Your task to perform on an android device: What's on my calendar today? Image 0: 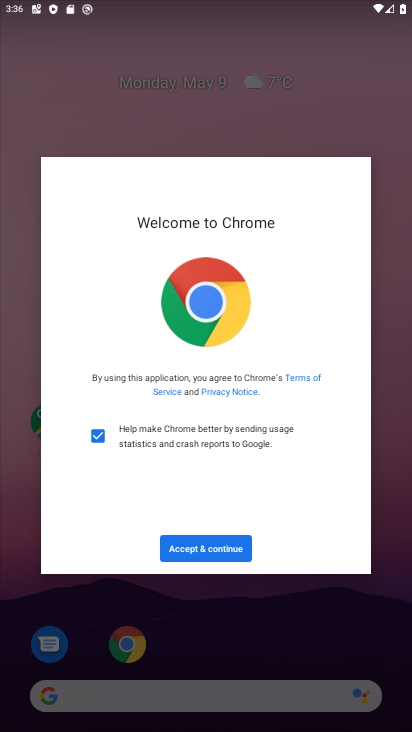
Step 0: click (384, 425)
Your task to perform on an android device: What's on my calendar today? Image 1: 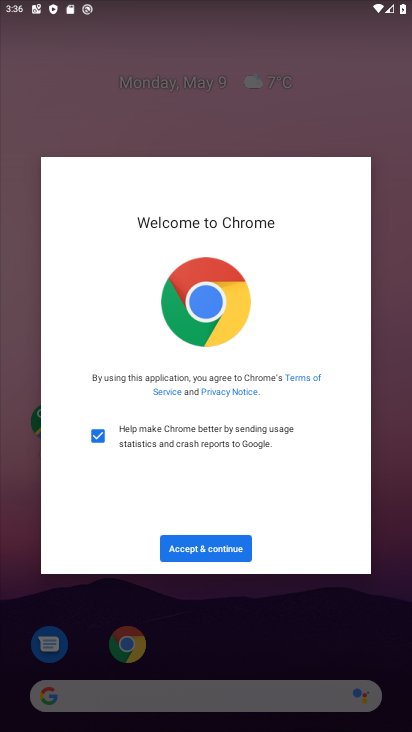
Step 1: click (198, 555)
Your task to perform on an android device: What's on my calendar today? Image 2: 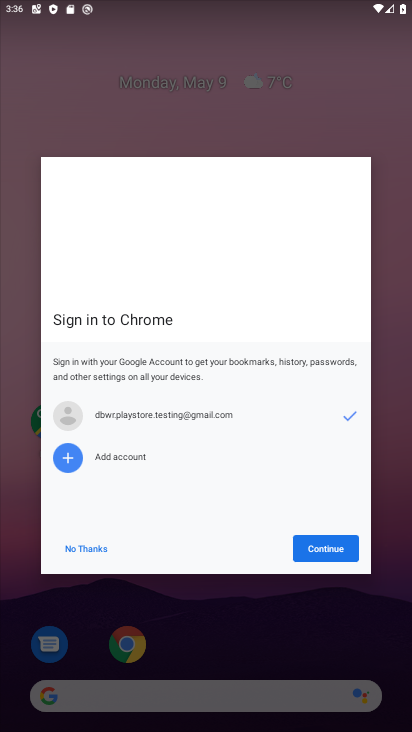
Step 2: click (314, 556)
Your task to perform on an android device: What's on my calendar today? Image 3: 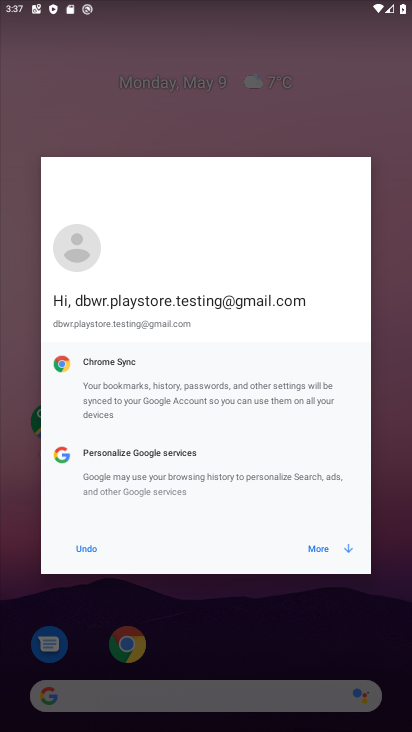
Step 3: click (314, 547)
Your task to perform on an android device: What's on my calendar today? Image 4: 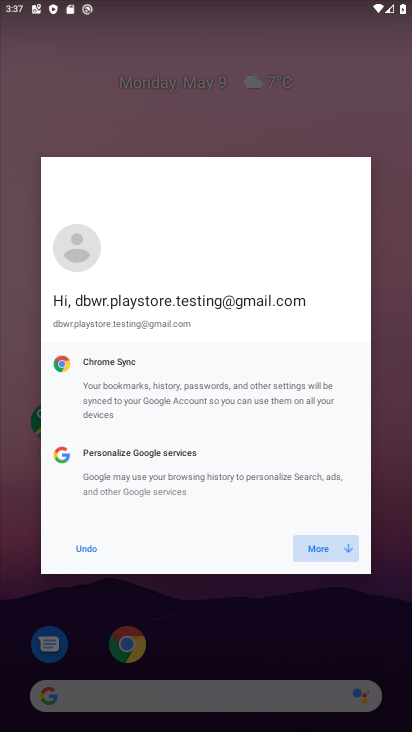
Step 4: click (314, 547)
Your task to perform on an android device: What's on my calendar today? Image 5: 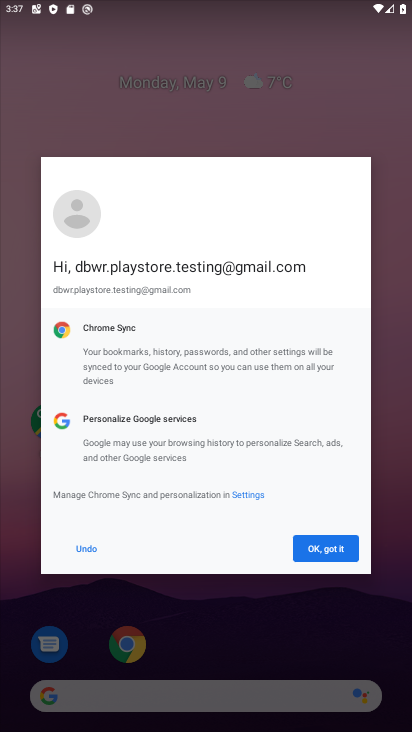
Step 5: click (314, 547)
Your task to perform on an android device: What's on my calendar today? Image 6: 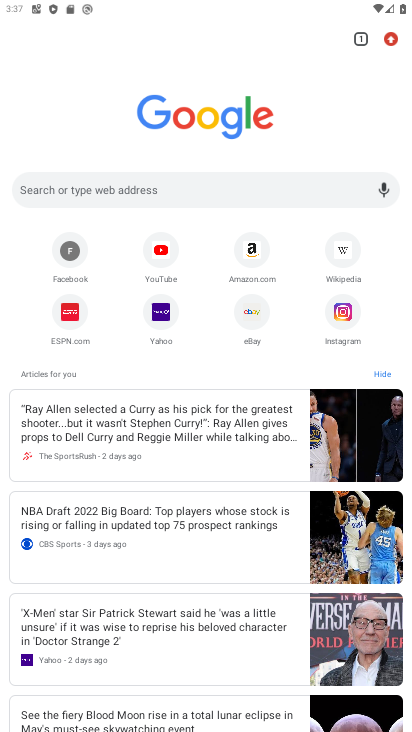
Step 6: press back button
Your task to perform on an android device: What's on my calendar today? Image 7: 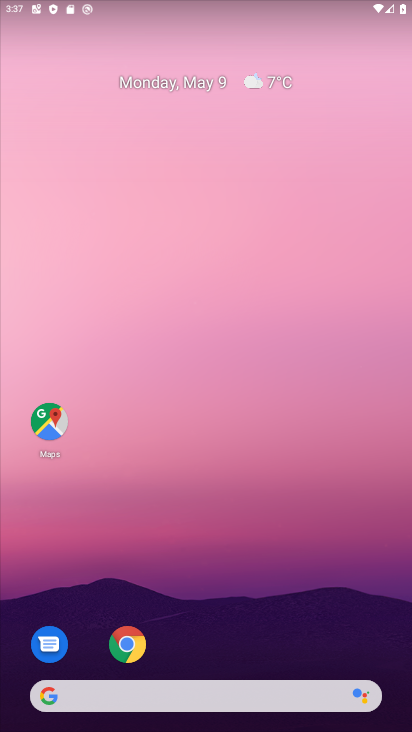
Step 7: drag from (212, 621) to (161, 56)
Your task to perform on an android device: What's on my calendar today? Image 8: 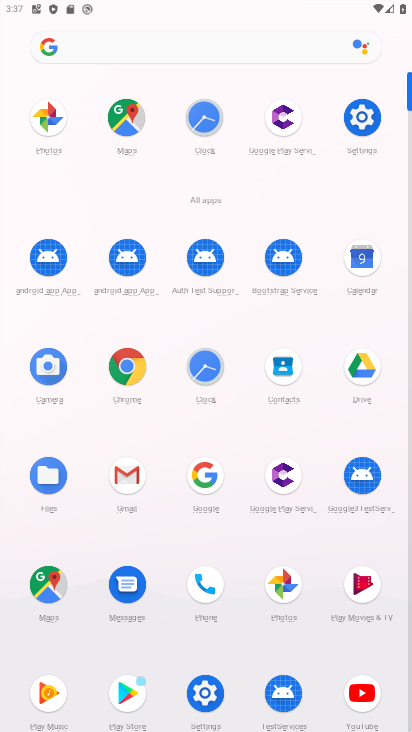
Step 8: click (365, 257)
Your task to perform on an android device: What's on my calendar today? Image 9: 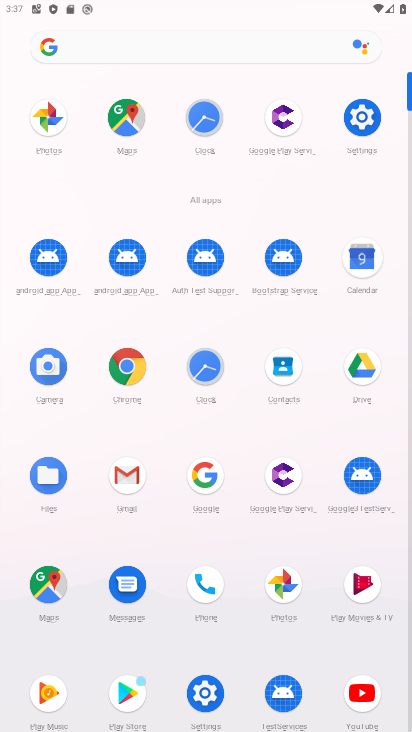
Step 9: click (364, 256)
Your task to perform on an android device: What's on my calendar today? Image 10: 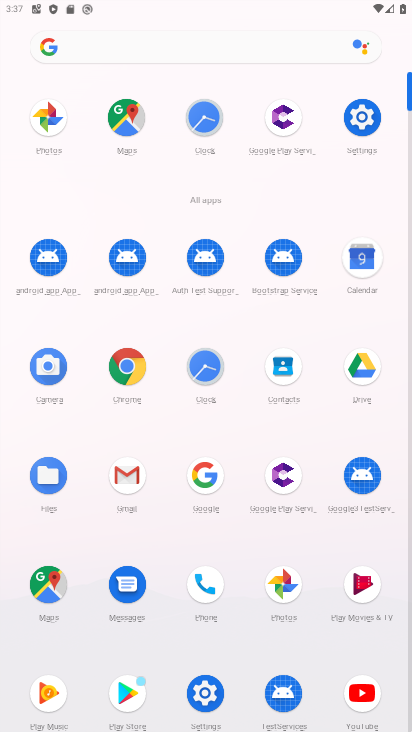
Step 10: click (363, 255)
Your task to perform on an android device: What's on my calendar today? Image 11: 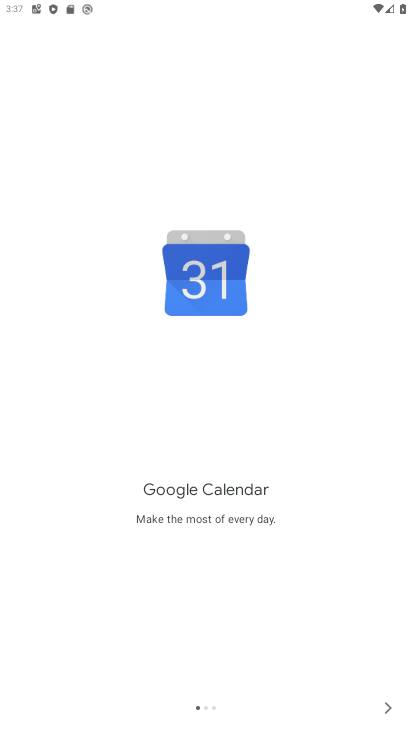
Step 11: click (383, 706)
Your task to perform on an android device: What's on my calendar today? Image 12: 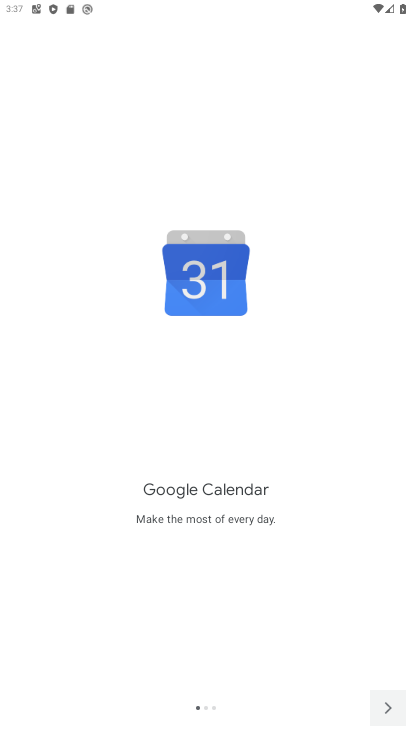
Step 12: click (384, 702)
Your task to perform on an android device: What's on my calendar today? Image 13: 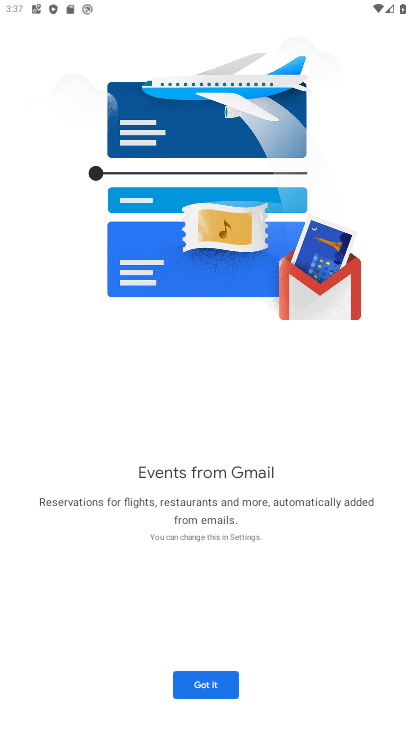
Step 13: click (220, 690)
Your task to perform on an android device: What's on my calendar today? Image 14: 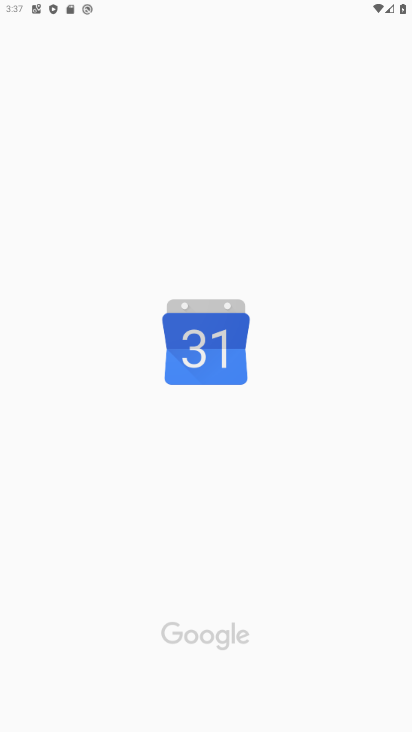
Step 14: click (220, 690)
Your task to perform on an android device: What's on my calendar today? Image 15: 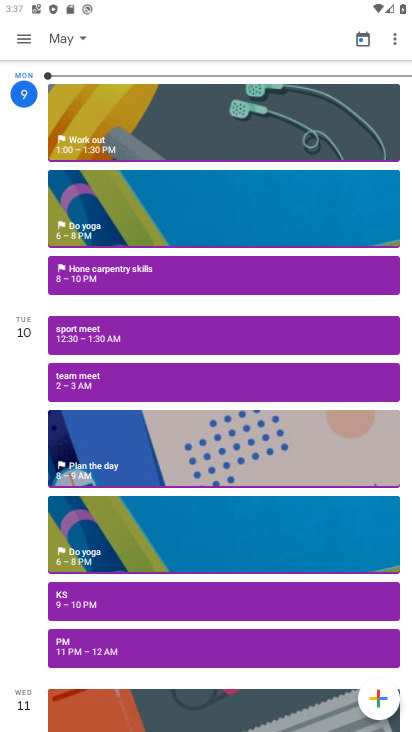
Step 15: task complete